Your task to perform on an android device: open device folders in google photos Image 0: 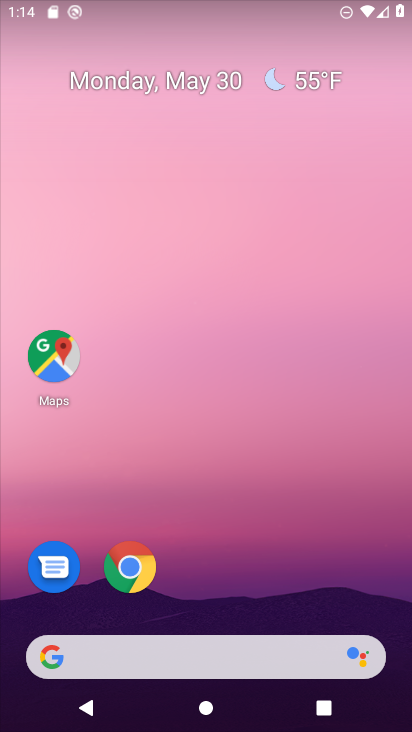
Step 0: drag from (215, 613) to (215, 69)
Your task to perform on an android device: open device folders in google photos Image 1: 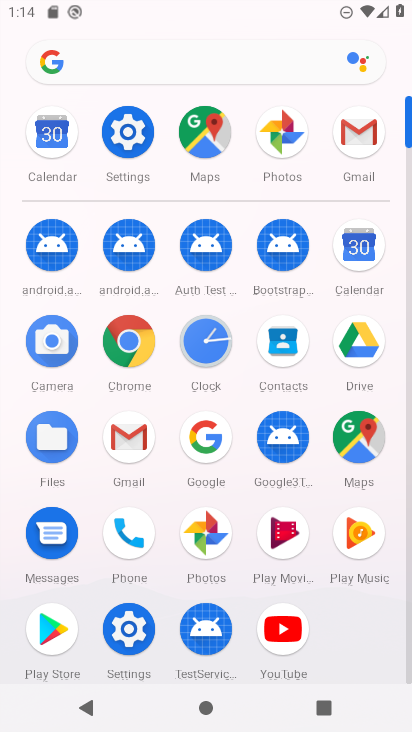
Step 1: click (199, 526)
Your task to perform on an android device: open device folders in google photos Image 2: 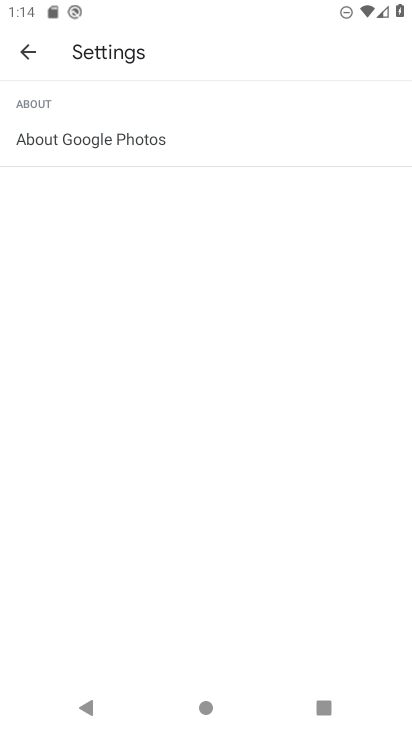
Step 2: click (31, 51)
Your task to perform on an android device: open device folders in google photos Image 3: 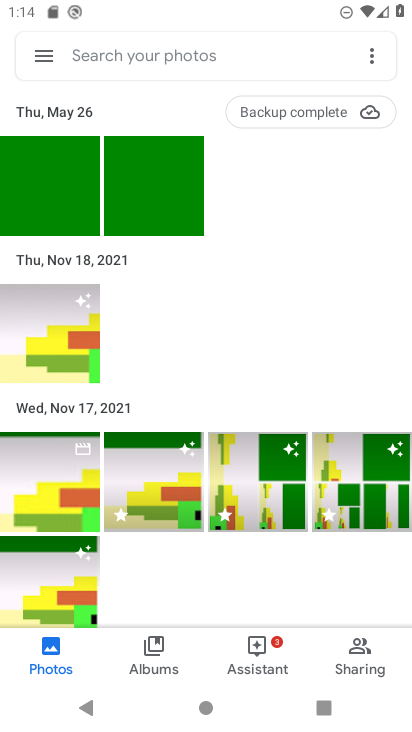
Step 3: click (37, 55)
Your task to perform on an android device: open device folders in google photos Image 4: 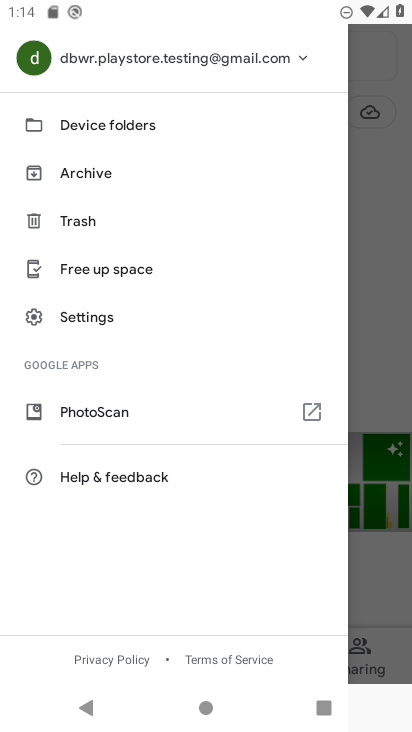
Step 4: click (161, 121)
Your task to perform on an android device: open device folders in google photos Image 5: 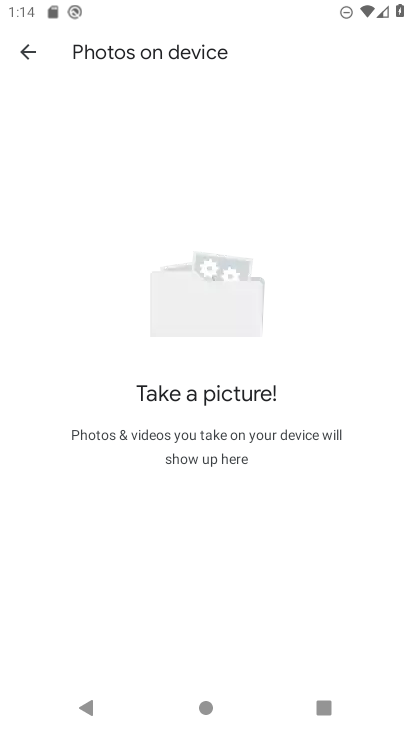
Step 5: task complete